Your task to perform on an android device: search for starred emails in the gmail app Image 0: 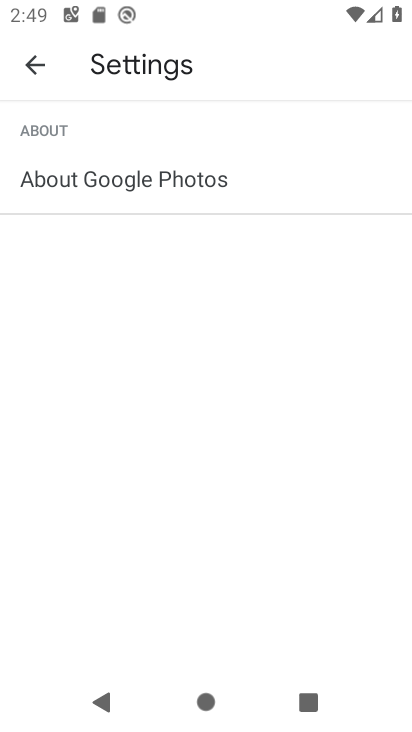
Step 0: press home button
Your task to perform on an android device: search for starred emails in the gmail app Image 1: 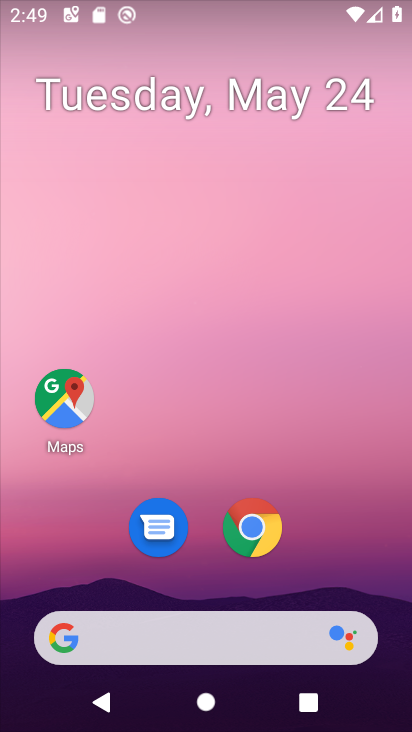
Step 1: drag from (356, 564) to (345, 11)
Your task to perform on an android device: search for starred emails in the gmail app Image 2: 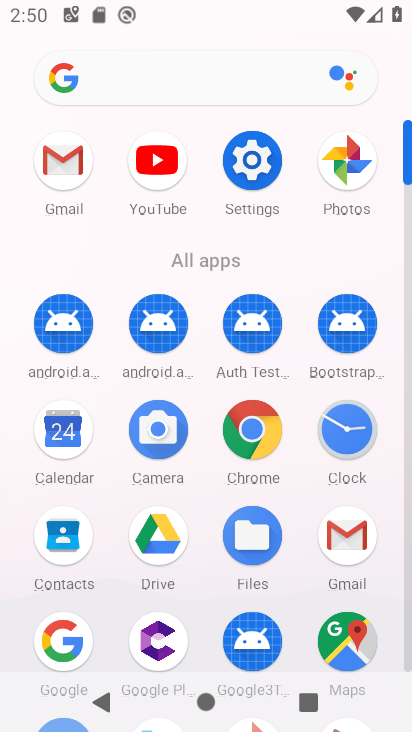
Step 2: click (57, 162)
Your task to perform on an android device: search for starred emails in the gmail app Image 3: 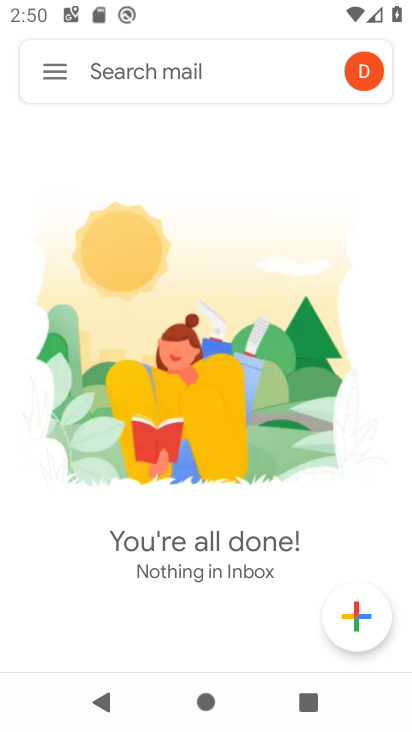
Step 3: click (46, 76)
Your task to perform on an android device: search for starred emails in the gmail app Image 4: 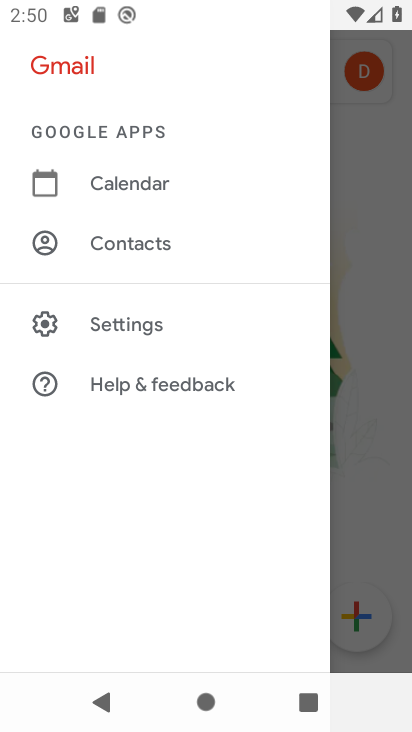
Step 4: drag from (193, 112) to (199, 481)
Your task to perform on an android device: search for starred emails in the gmail app Image 5: 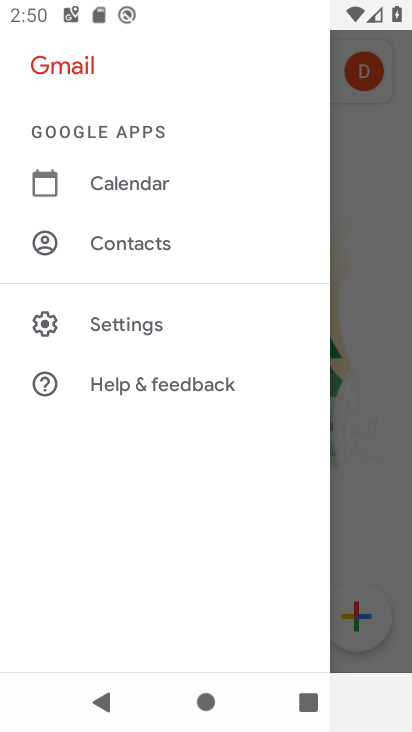
Step 5: click (362, 237)
Your task to perform on an android device: search for starred emails in the gmail app Image 6: 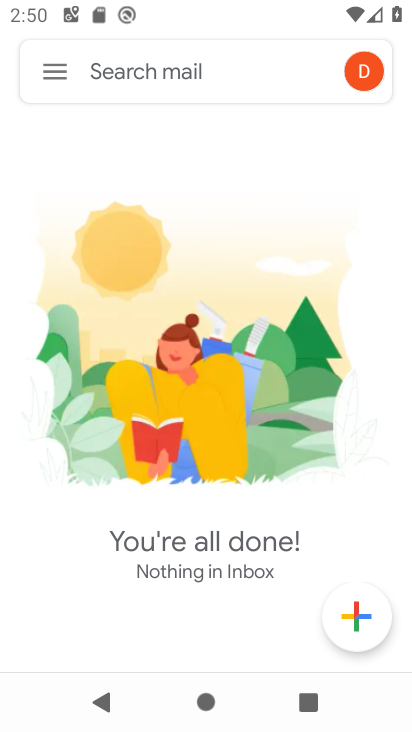
Step 6: drag from (237, 166) to (272, 508)
Your task to perform on an android device: search for starred emails in the gmail app Image 7: 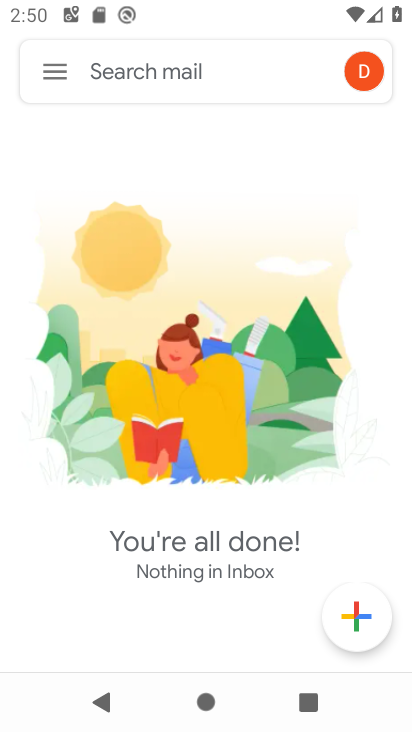
Step 7: click (51, 80)
Your task to perform on an android device: search for starred emails in the gmail app Image 8: 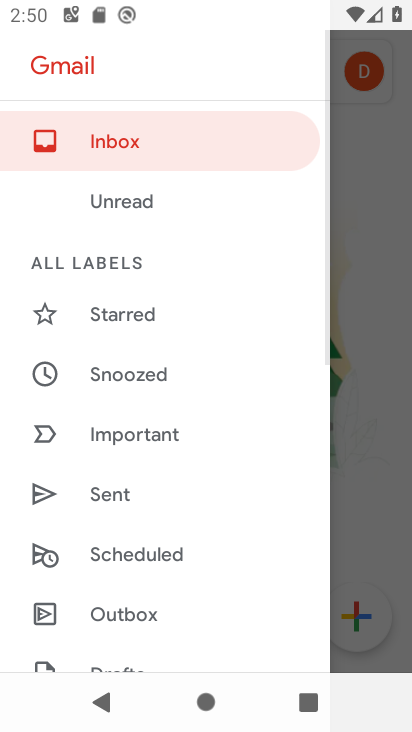
Step 8: click (112, 315)
Your task to perform on an android device: search for starred emails in the gmail app Image 9: 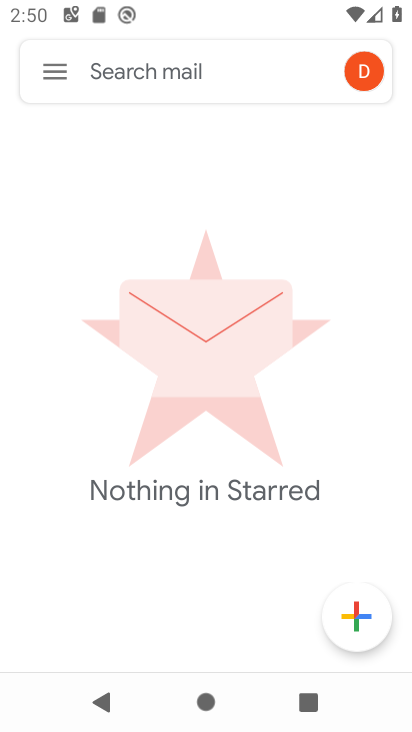
Step 9: task complete